Your task to perform on an android device: Open wifi settings Image 0: 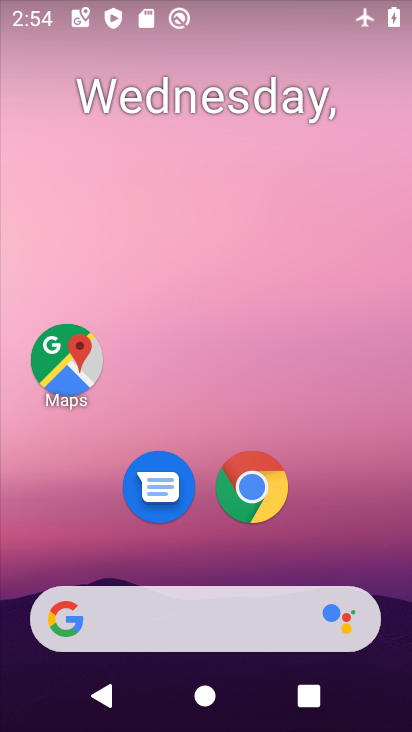
Step 0: drag from (344, 508) to (312, 16)
Your task to perform on an android device: Open wifi settings Image 1: 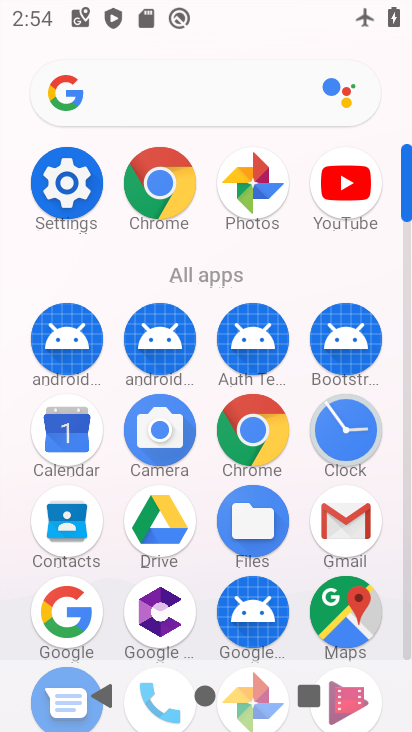
Step 1: click (76, 178)
Your task to perform on an android device: Open wifi settings Image 2: 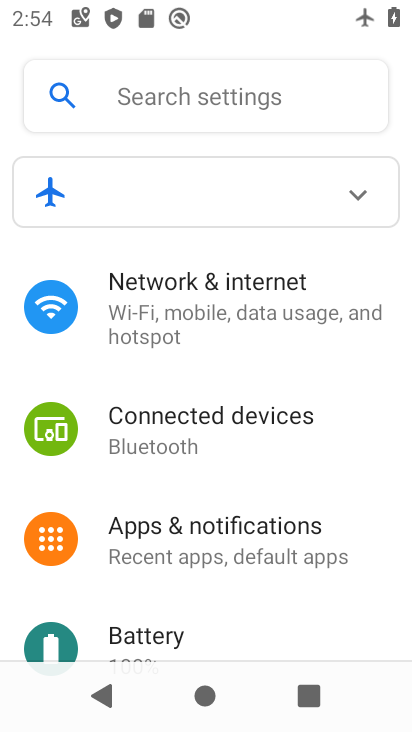
Step 2: click (153, 301)
Your task to perform on an android device: Open wifi settings Image 3: 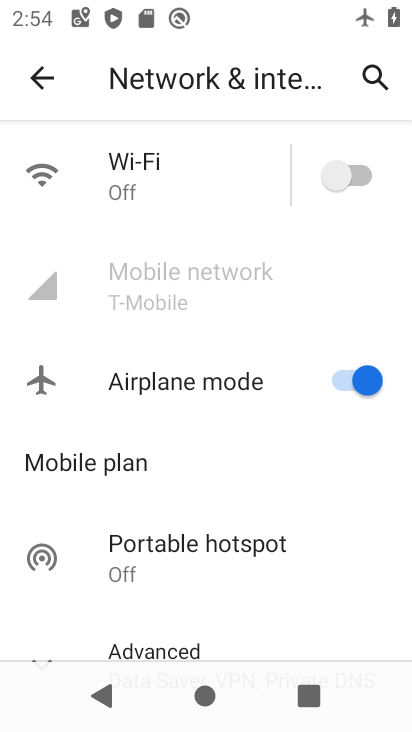
Step 3: task complete